Your task to perform on an android device: allow notifications from all sites in the chrome app Image 0: 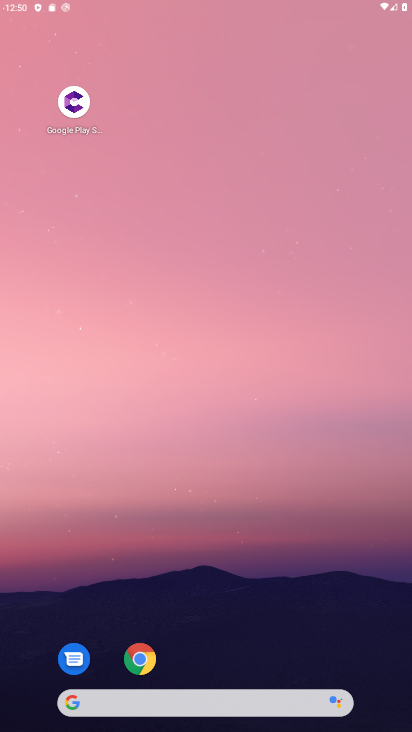
Step 0: click (220, 644)
Your task to perform on an android device: allow notifications from all sites in the chrome app Image 1: 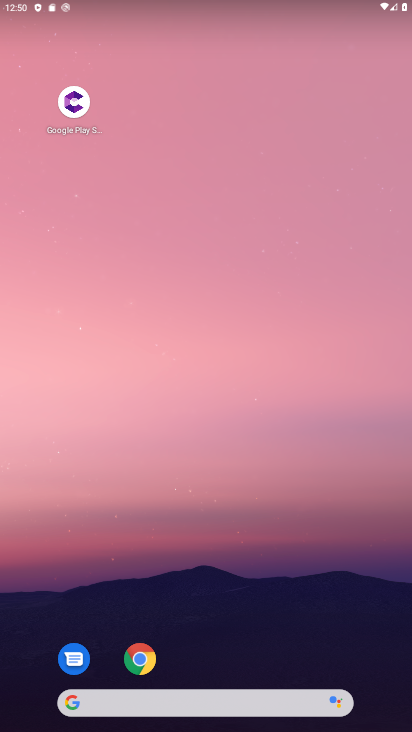
Step 1: click (149, 644)
Your task to perform on an android device: allow notifications from all sites in the chrome app Image 2: 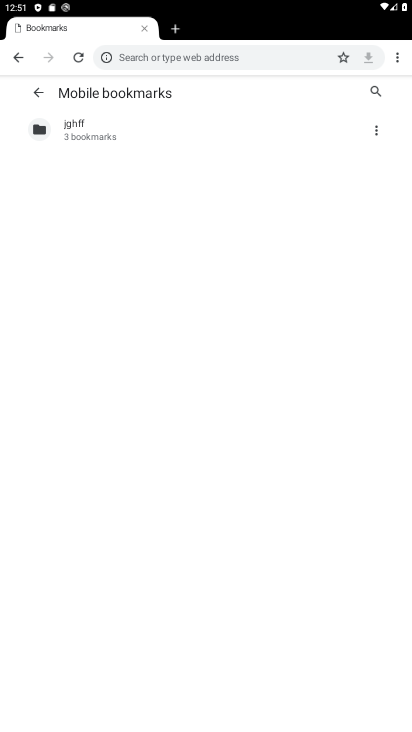
Step 2: click (400, 59)
Your task to perform on an android device: allow notifications from all sites in the chrome app Image 3: 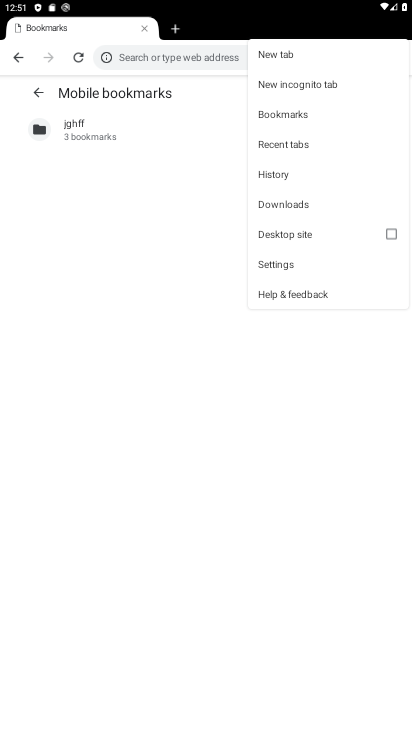
Step 3: click (305, 258)
Your task to perform on an android device: allow notifications from all sites in the chrome app Image 4: 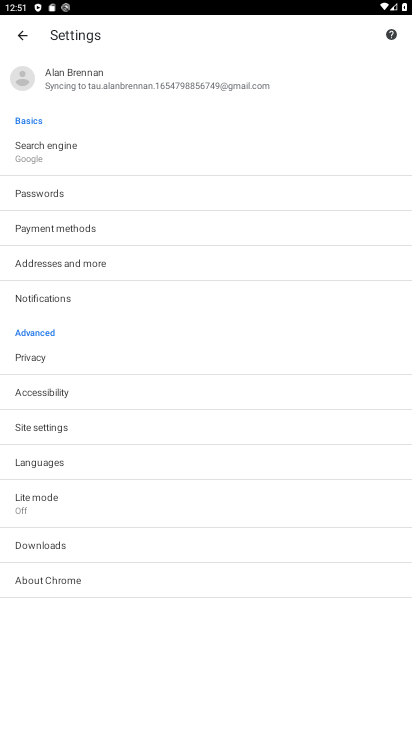
Step 4: click (52, 424)
Your task to perform on an android device: allow notifications from all sites in the chrome app Image 5: 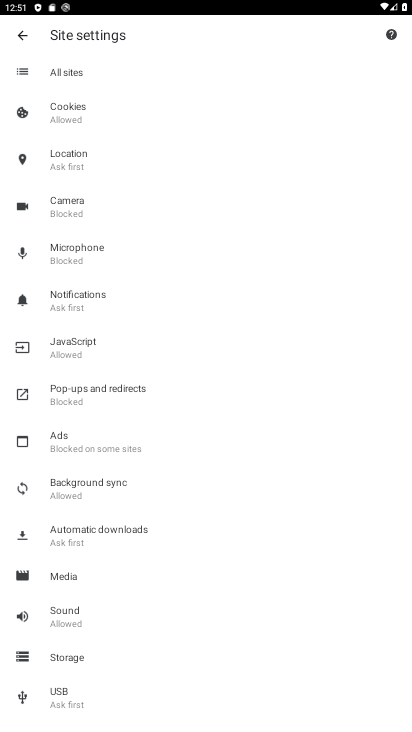
Step 5: click (99, 70)
Your task to perform on an android device: allow notifications from all sites in the chrome app Image 6: 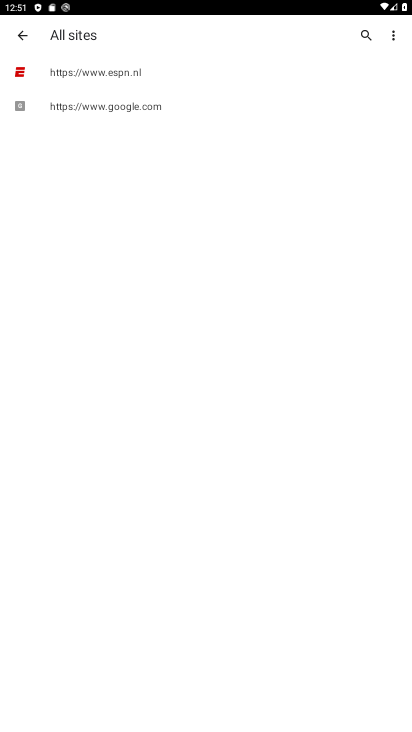
Step 6: click (159, 99)
Your task to perform on an android device: allow notifications from all sites in the chrome app Image 7: 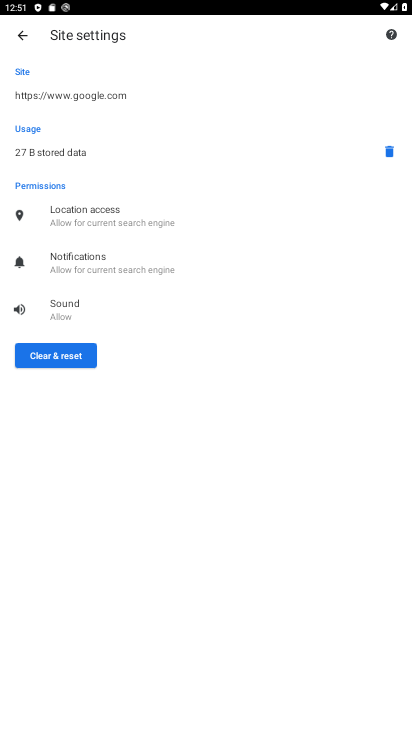
Step 7: click (139, 264)
Your task to perform on an android device: allow notifications from all sites in the chrome app Image 8: 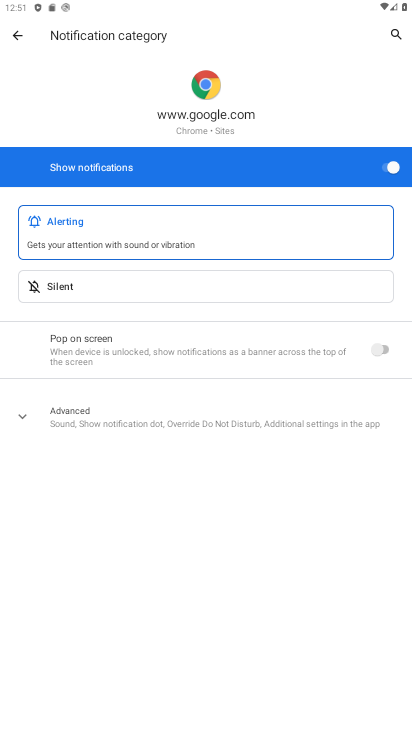
Step 8: task complete